Your task to perform on an android device: toggle improve location accuracy Image 0: 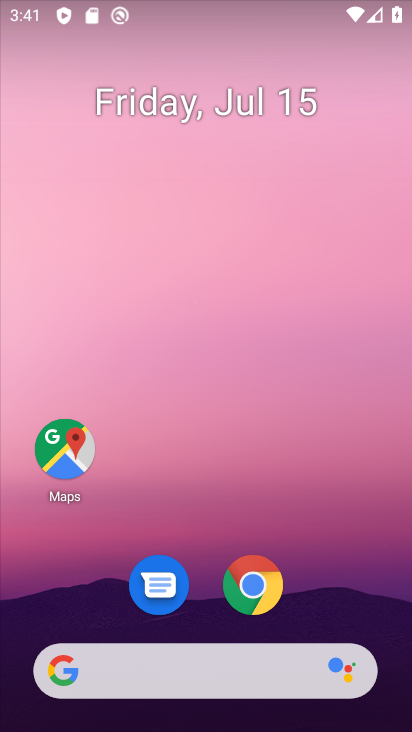
Step 0: drag from (244, 518) to (278, 23)
Your task to perform on an android device: toggle improve location accuracy Image 1: 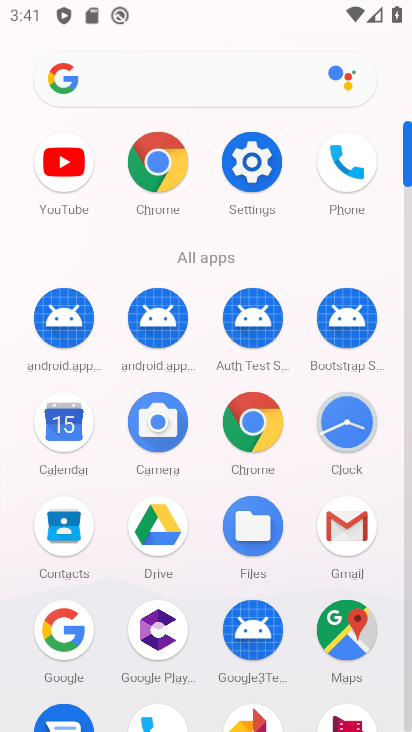
Step 1: click (247, 167)
Your task to perform on an android device: toggle improve location accuracy Image 2: 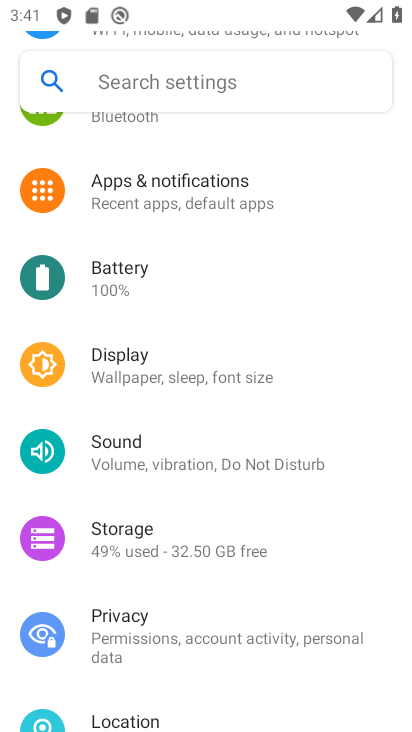
Step 2: drag from (230, 614) to (250, 355)
Your task to perform on an android device: toggle improve location accuracy Image 3: 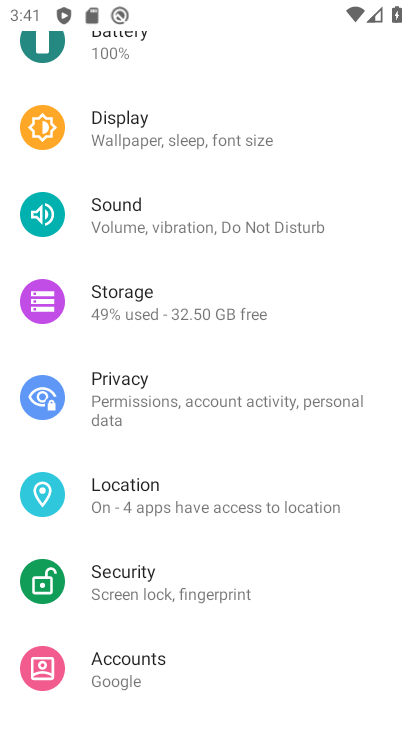
Step 3: click (201, 497)
Your task to perform on an android device: toggle improve location accuracy Image 4: 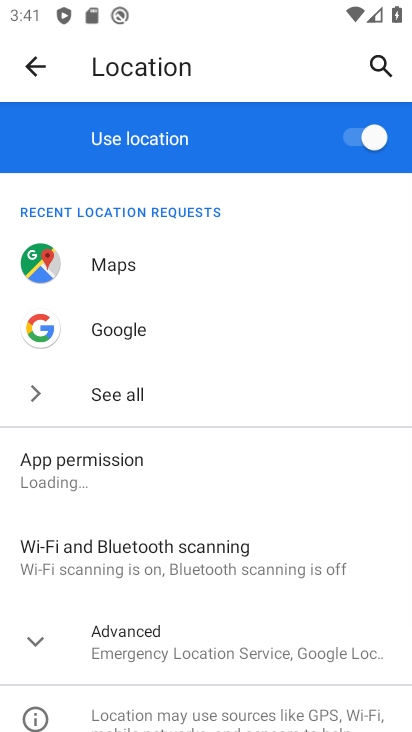
Step 4: drag from (178, 554) to (195, 265)
Your task to perform on an android device: toggle improve location accuracy Image 5: 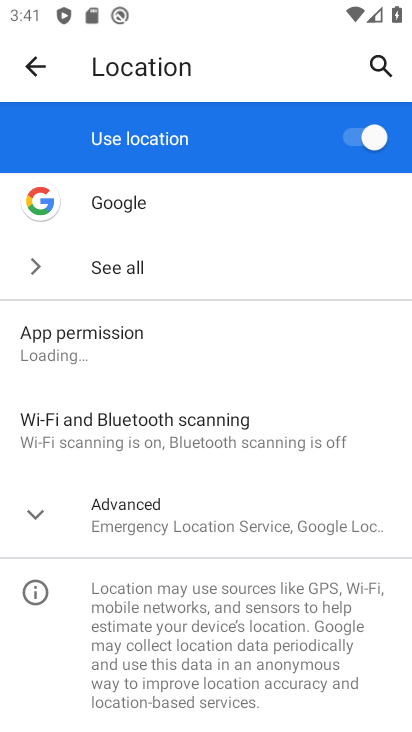
Step 5: click (37, 518)
Your task to perform on an android device: toggle improve location accuracy Image 6: 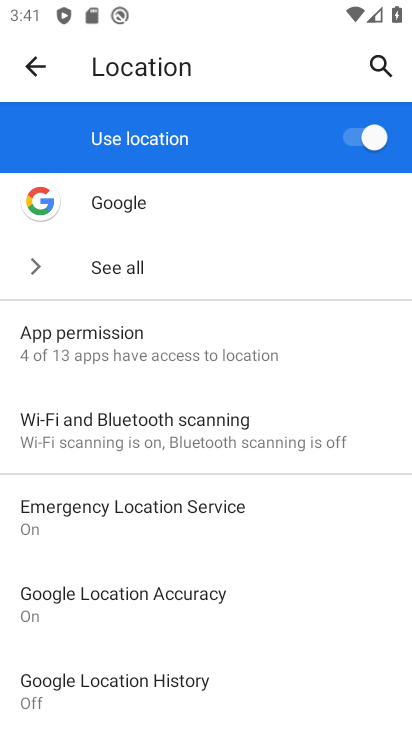
Step 6: click (201, 596)
Your task to perform on an android device: toggle improve location accuracy Image 7: 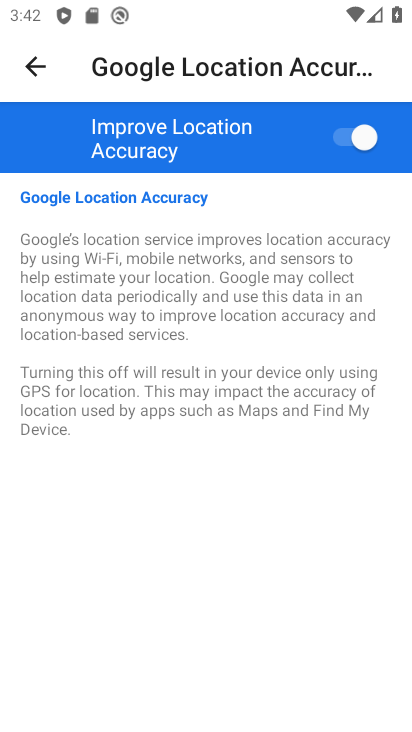
Step 7: click (356, 142)
Your task to perform on an android device: toggle improve location accuracy Image 8: 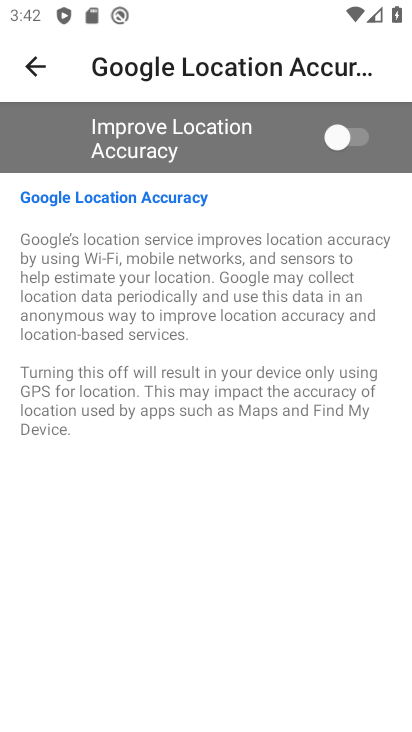
Step 8: task complete